Your task to perform on an android device: choose inbox layout in the gmail app Image 0: 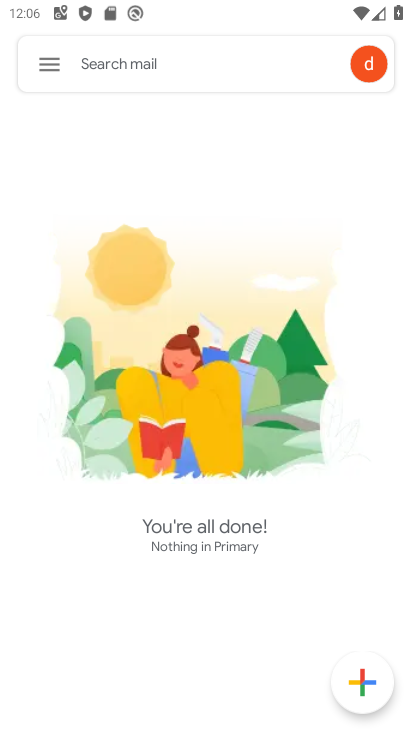
Step 0: press home button
Your task to perform on an android device: choose inbox layout in the gmail app Image 1: 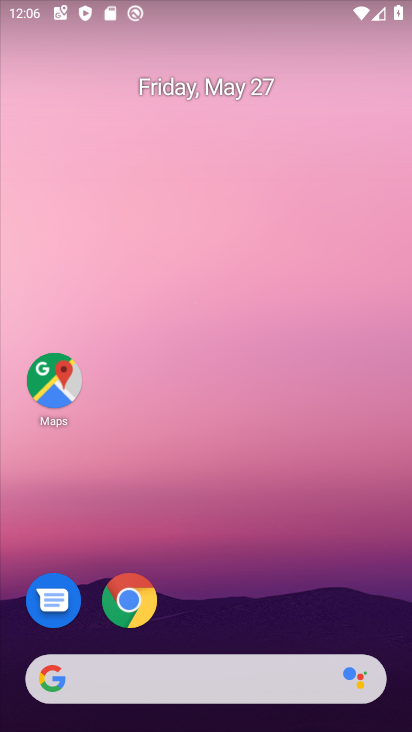
Step 1: drag from (184, 641) to (206, 25)
Your task to perform on an android device: choose inbox layout in the gmail app Image 2: 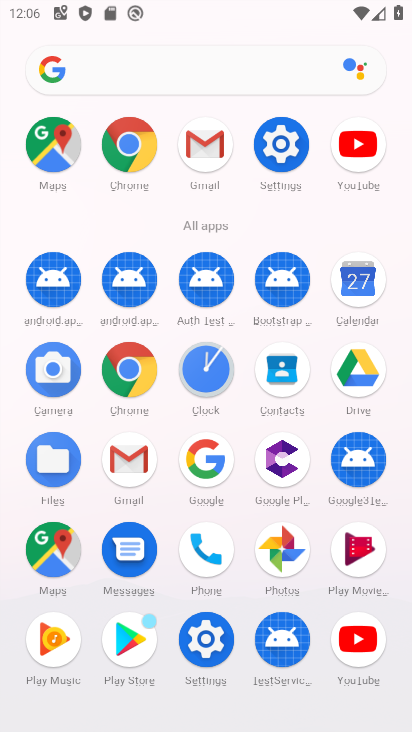
Step 2: click (207, 204)
Your task to perform on an android device: choose inbox layout in the gmail app Image 3: 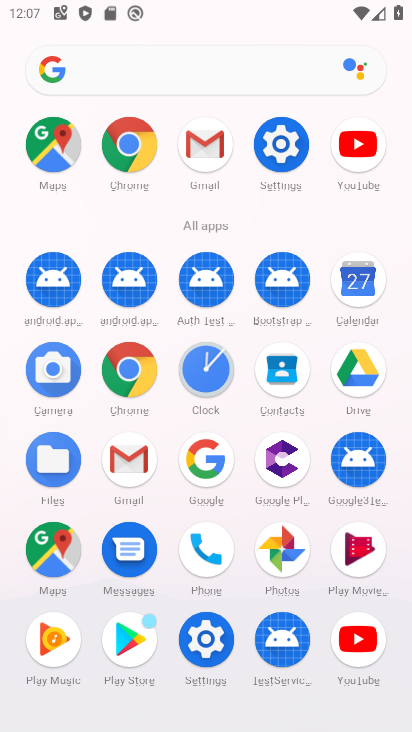
Step 3: click (210, 145)
Your task to perform on an android device: choose inbox layout in the gmail app Image 4: 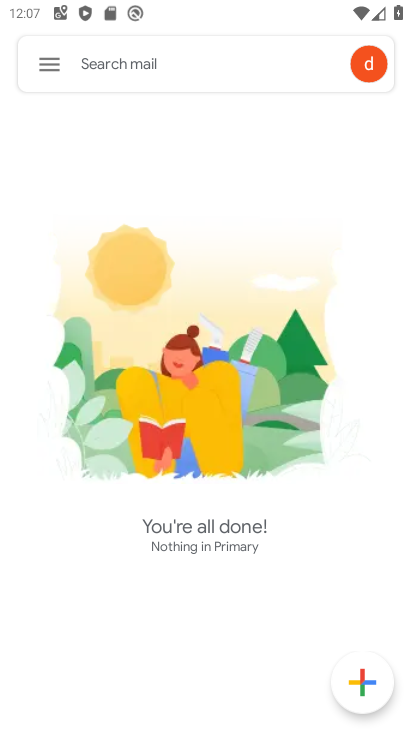
Step 4: click (56, 62)
Your task to perform on an android device: choose inbox layout in the gmail app Image 5: 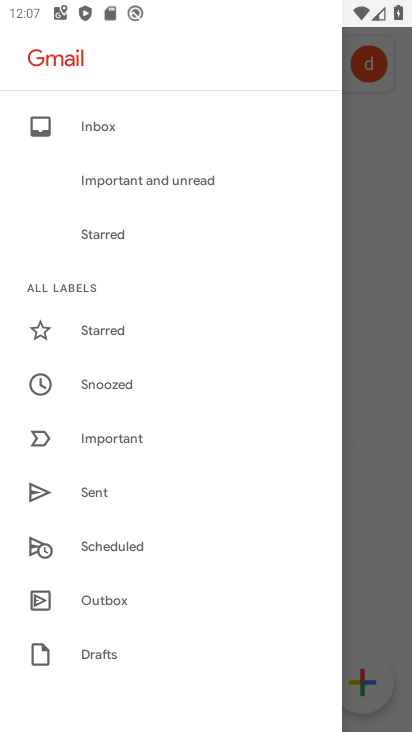
Step 5: drag from (119, 656) to (162, 202)
Your task to perform on an android device: choose inbox layout in the gmail app Image 6: 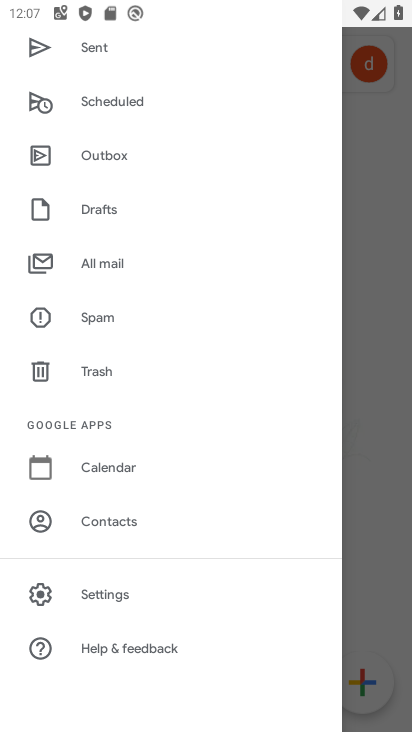
Step 6: click (126, 601)
Your task to perform on an android device: choose inbox layout in the gmail app Image 7: 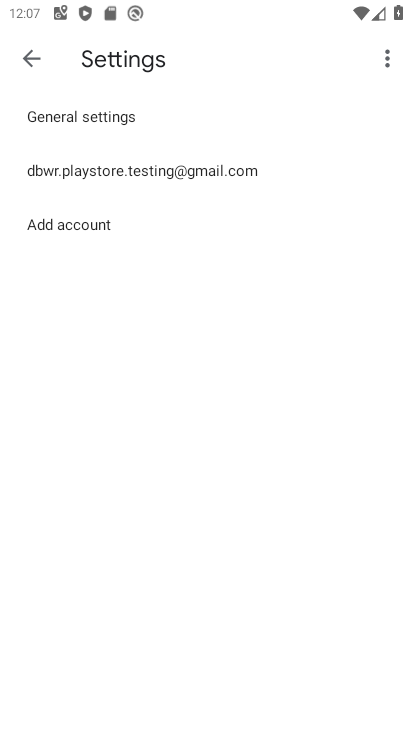
Step 7: click (171, 176)
Your task to perform on an android device: choose inbox layout in the gmail app Image 8: 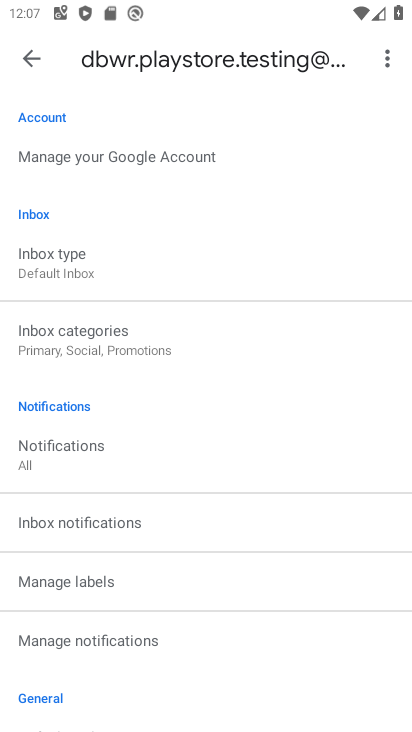
Step 8: click (118, 263)
Your task to perform on an android device: choose inbox layout in the gmail app Image 9: 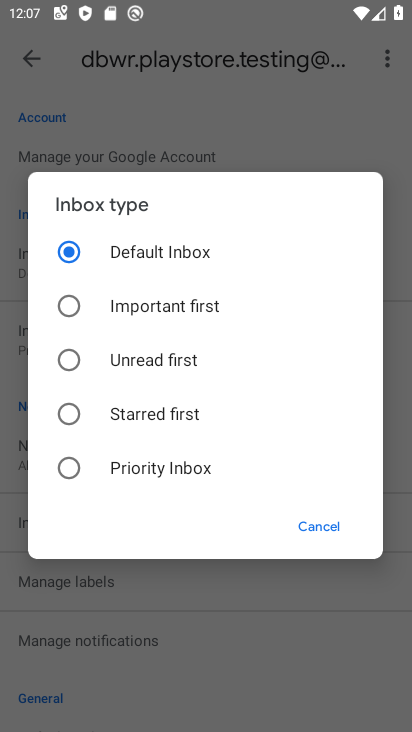
Step 9: click (138, 408)
Your task to perform on an android device: choose inbox layout in the gmail app Image 10: 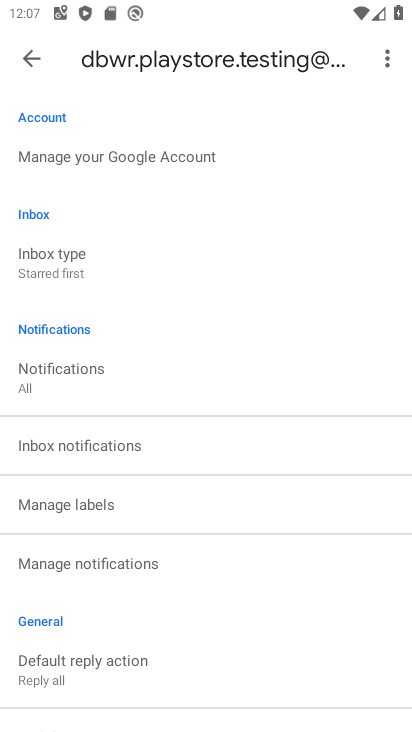
Step 10: task complete